Your task to perform on an android device: Open accessibility settings Image 0: 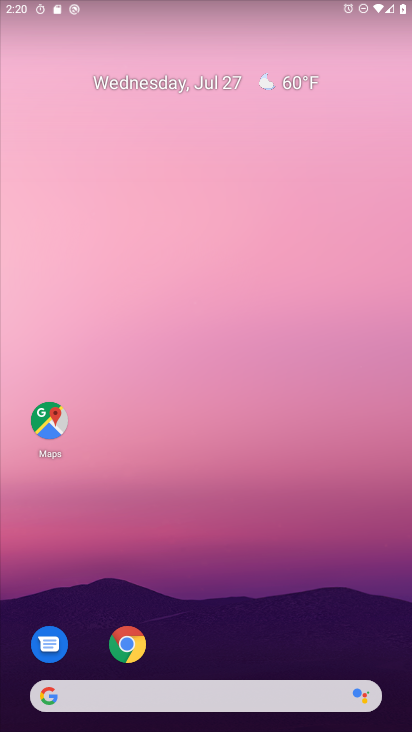
Step 0: drag from (197, 662) to (182, 126)
Your task to perform on an android device: Open accessibility settings Image 1: 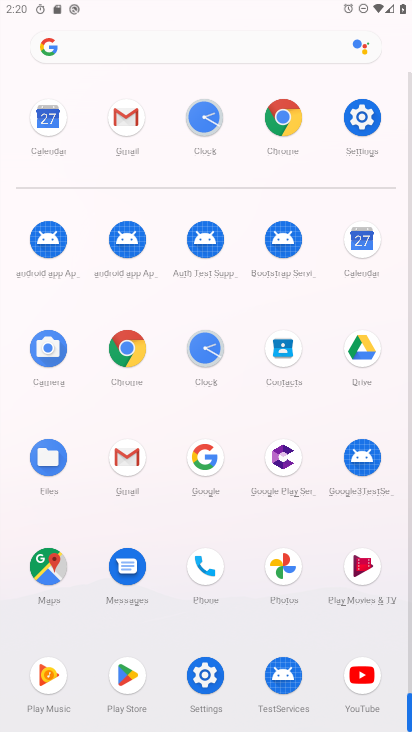
Step 1: click (357, 124)
Your task to perform on an android device: Open accessibility settings Image 2: 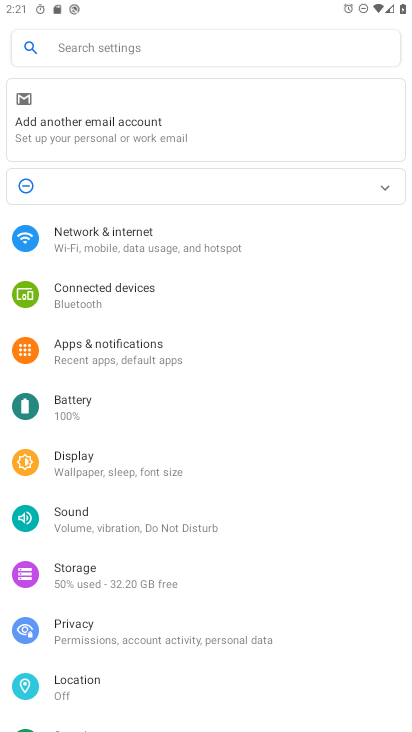
Step 2: drag from (275, 594) to (271, 139)
Your task to perform on an android device: Open accessibility settings Image 3: 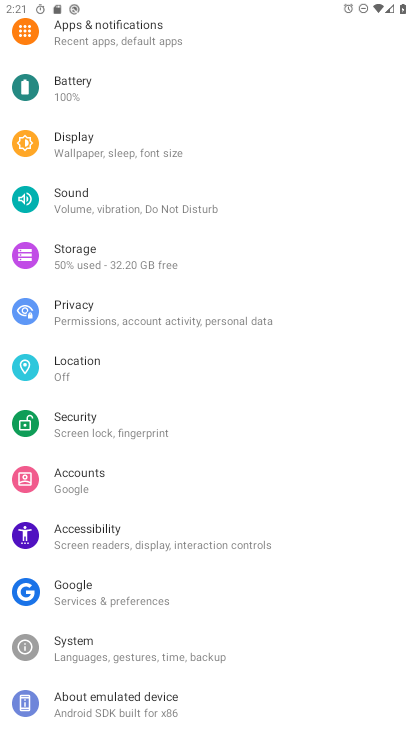
Step 3: click (153, 523)
Your task to perform on an android device: Open accessibility settings Image 4: 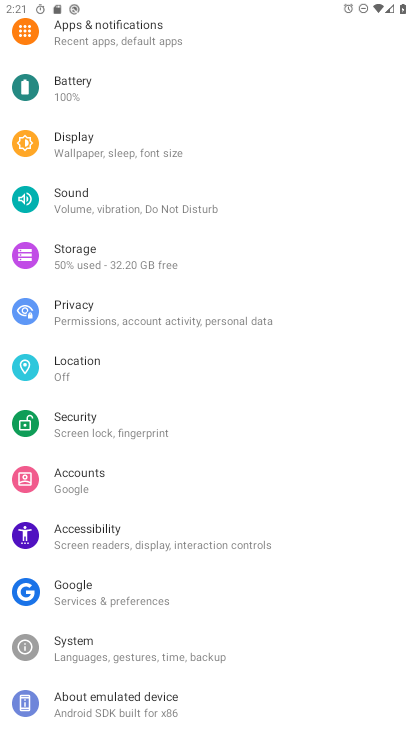
Step 4: click (155, 521)
Your task to perform on an android device: Open accessibility settings Image 5: 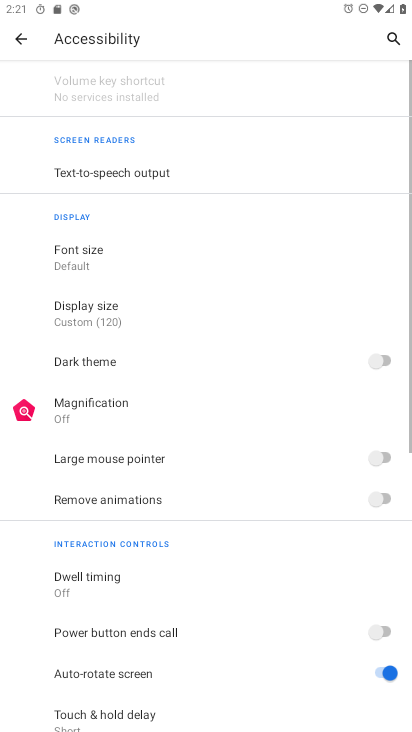
Step 5: task complete